Your task to perform on an android device: Set the phone to "Do not disturb". Image 0: 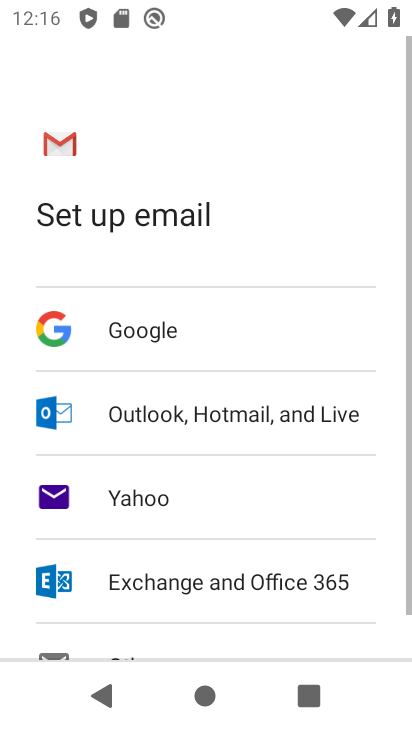
Step 0: press home button
Your task to perform on an android device: Set the phone to "Do not disturb". Image 1: 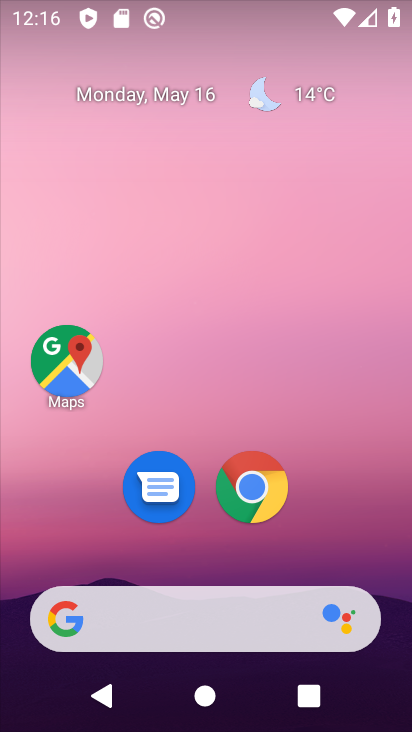
Step 1: drag from (146, 611) to (264, 207)
Your task to perform on an android device: Set the phone to "Do not disturb". Image 2: 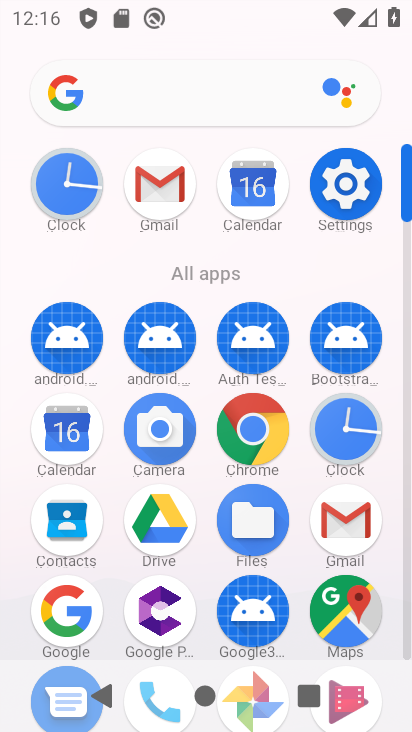
Step 2: click (346, 200)
Your task to perform on an android device: Set the phone to "Do not disturb". Image 3: 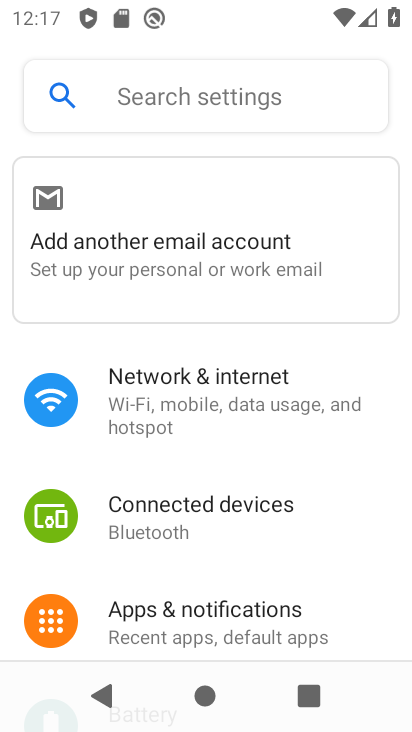
Step 3: drag from (226, 576) to (320, 270)
Your task to perform on an android device: Set the phone to "Do not disturb". Image 4: 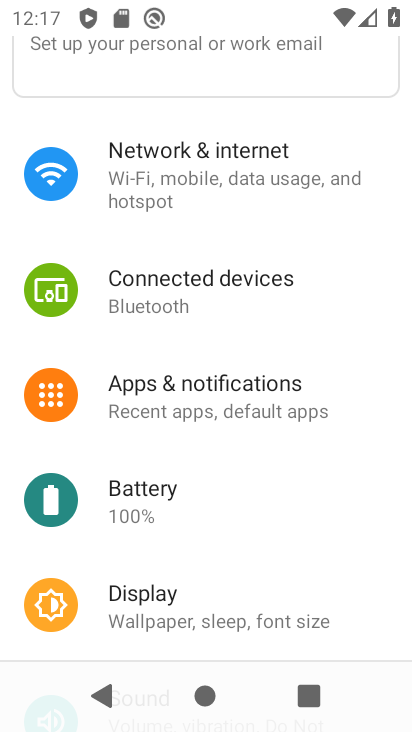
Step 4: drag from (192, 590) to (253, 223)
Your task to perform on an android device: Set the phone to "Do not disturb". Image 5: 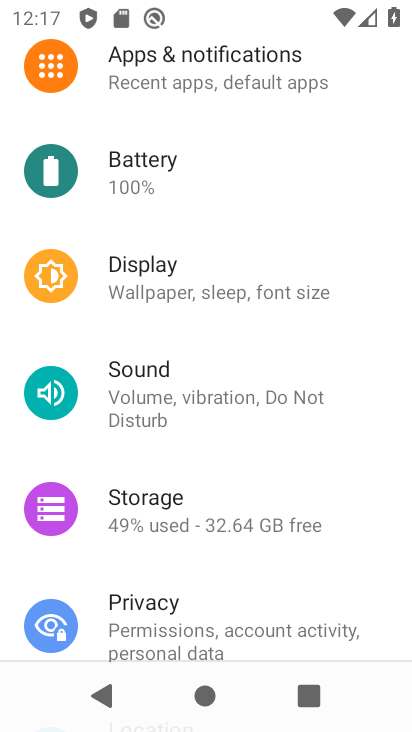
Step 5: click (170, 374)
Your task to perform on an android device: Set the phone to "Do not disturb". Image 6: 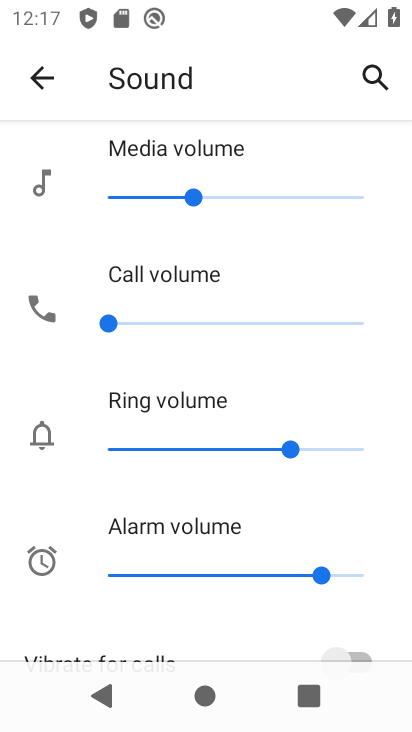
Step 6: drag from (161, 627) to (286, 205)
Your task to perform on an android device: Set the phone to "Do not disturb". Image 7: 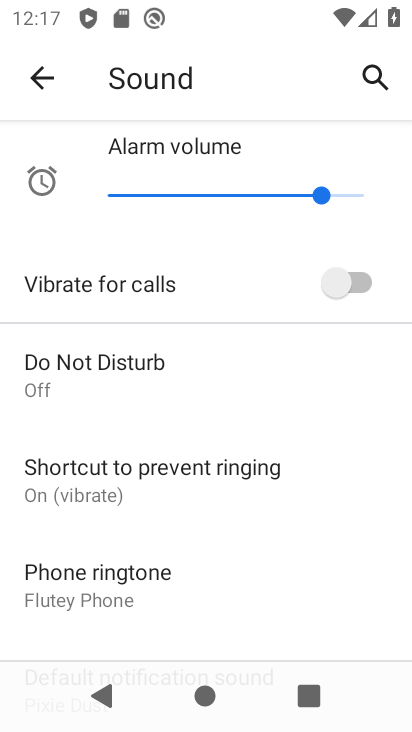
Step 7: click (63, 368)
Your task to perform on an android device: Set the phone to "Do not disturb". Image 8: 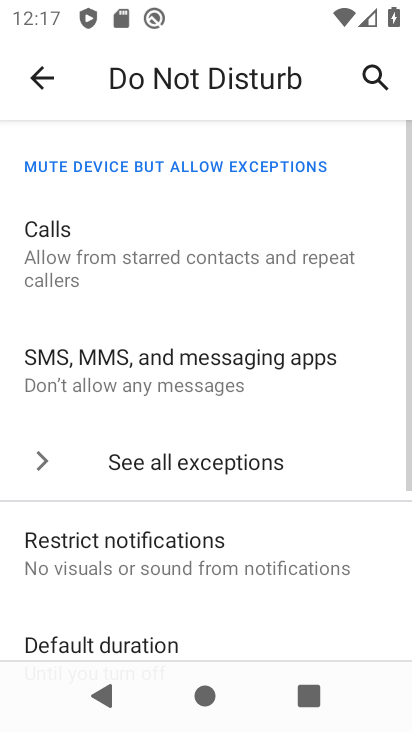
Step 8: drag from (137, 621) to (263, 239)
Your task to perform on an android device: Set the phone to "Do not disturb". Image 9: 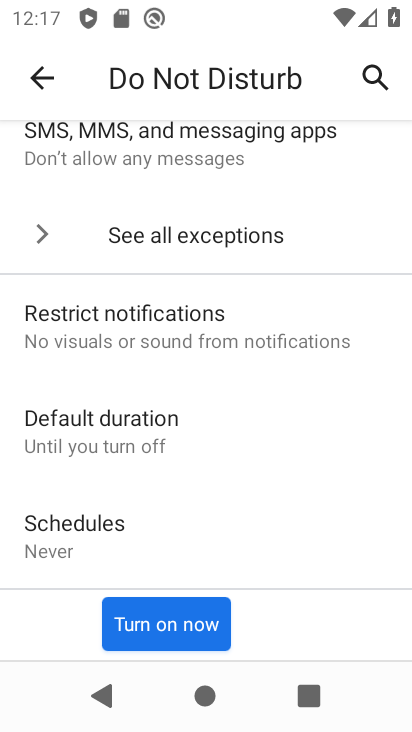
Step 9: click (169, 639)
Your task to perform on an android device: Set the phone to "Do not disturb". Image 10: 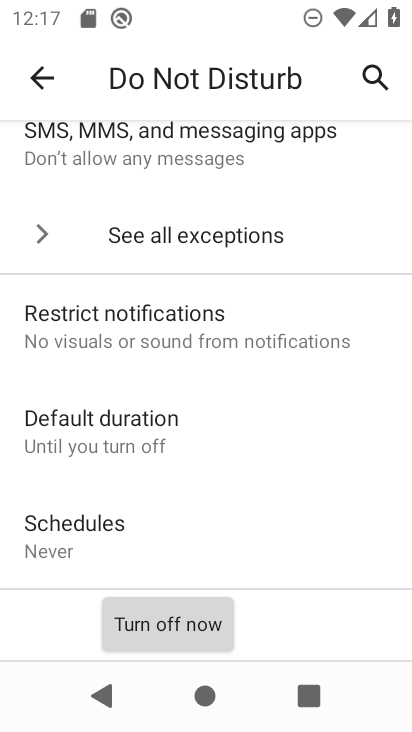
Step 10: task complete